Your task to perform on an android device: Open eBay Image 0: 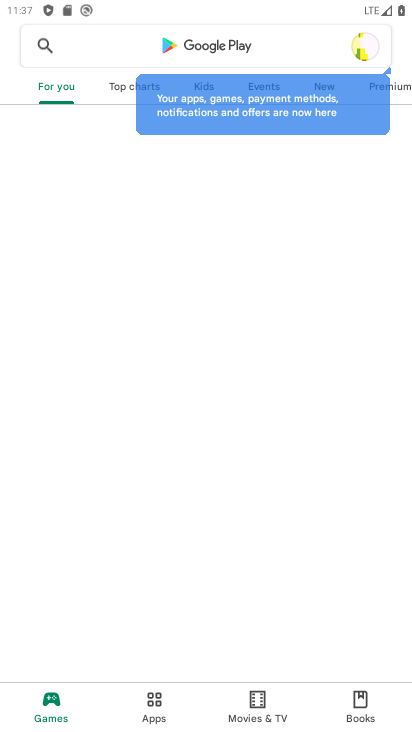
Step 0: press home button
Your task to perform on an android device: Open eBay Image 1: 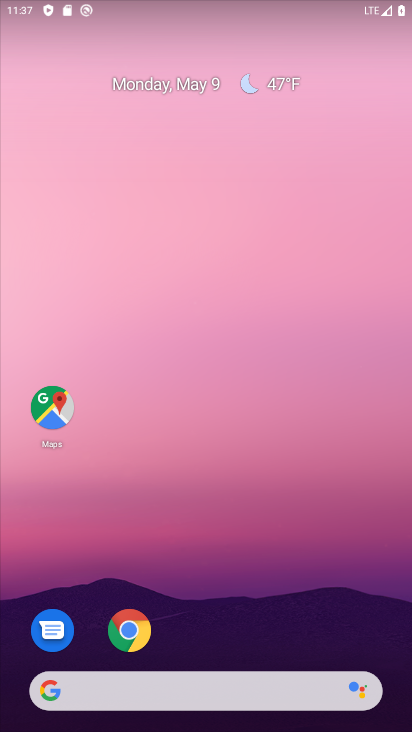
Step 1: drag from (174, 696) to (279, 139)
Your task to perform on an android device: Open eBay Image 2: 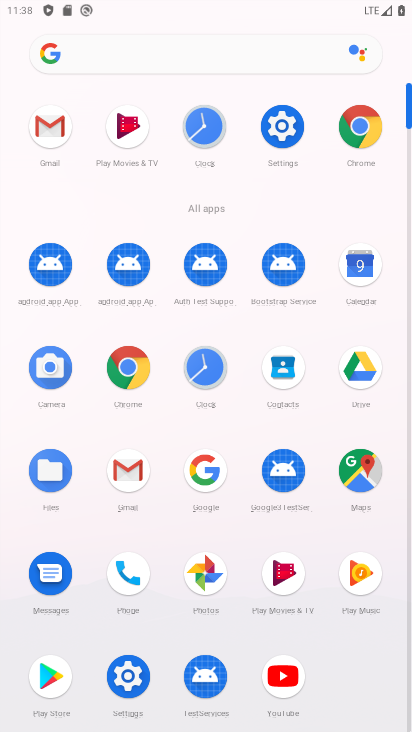
Step 2: click (368, 135)
Your task to perform on an android device: Open eBay Image 3: 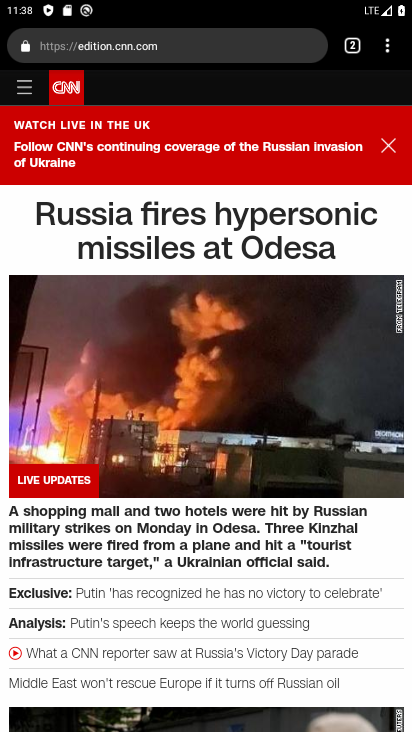
Step 3: drag from (389, 49) to (315, 85)
Your task to perform on an android device: Open eBay Image 4: 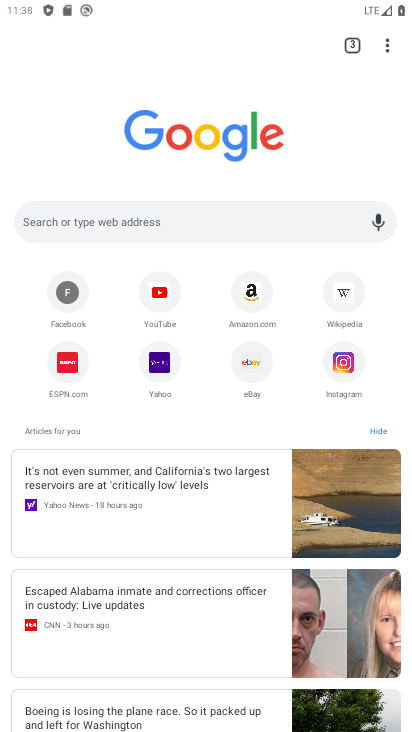
Step 4: click (241, 369)
Your task to perform on an android device: Open eBay Image 5: 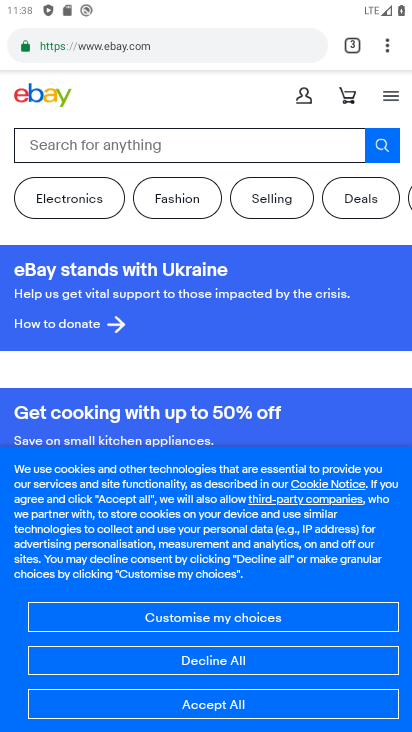
Step 5: task complete